Your task to perform on an android device: Go to Maps Image 0: 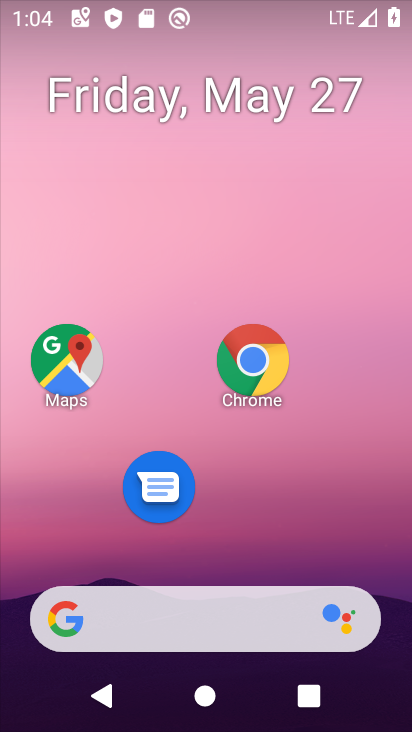
Step 0: click (69, 364)
Your task to perform on an android device: Go to Maps Image 1: 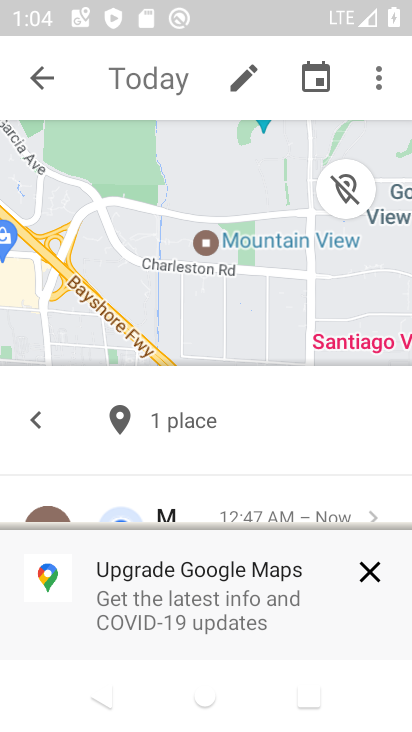
Step 1: task complete